Your task to perform on an android device: turn on wifi Image 0: 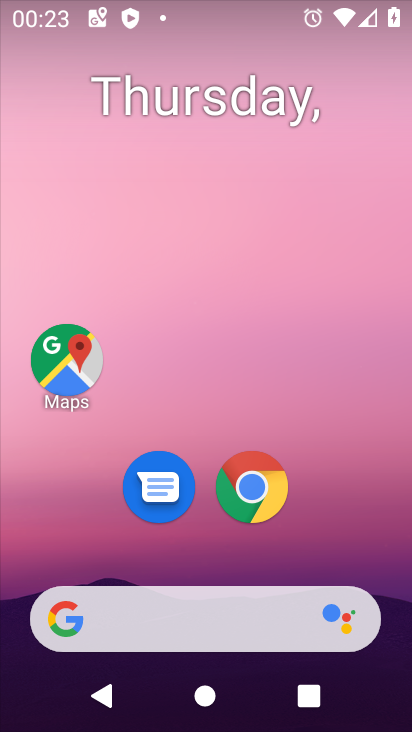
Step 0: drag from (357, 551) to (284, 3)
Your task to perform on an android device: turn on wifi Image 1: 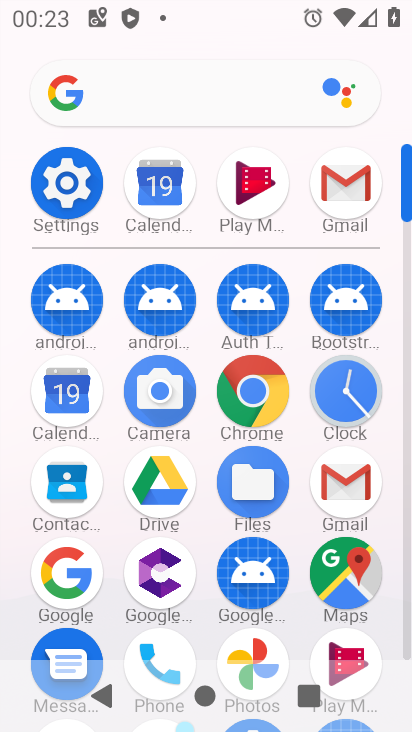
Step 1: click (68, 177)
Your task to perform on an android device: turn on wifi Image 2: 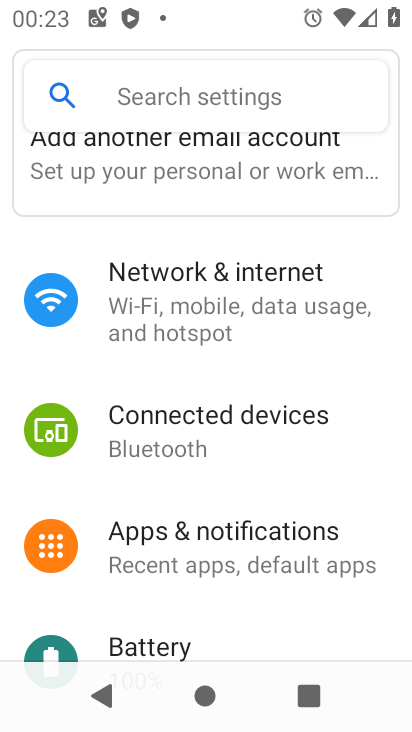
Step 2: click (160, 312)
Your task to perform on an android device: turn on wifi Image 3: 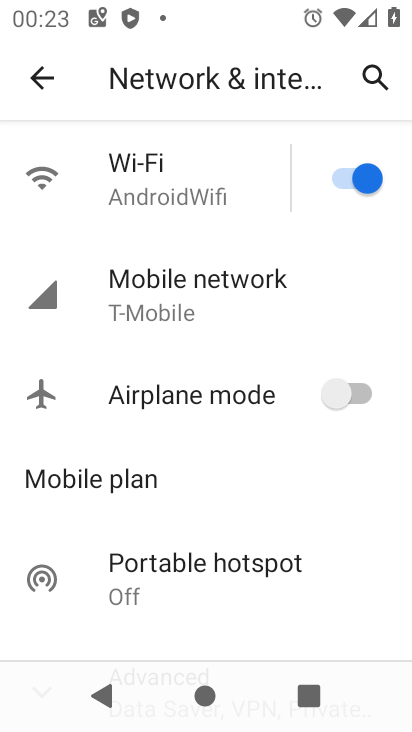
Step 3: task complete